Your task to perform on an android device: uninstall "Firefox Browser" Image 0: 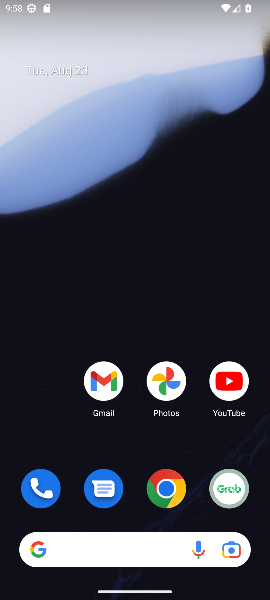
Step 0: drag from (124, 479) to (143, 161)
Your task to perform on an android device: uninstall "Firefox Browser" Image 1: 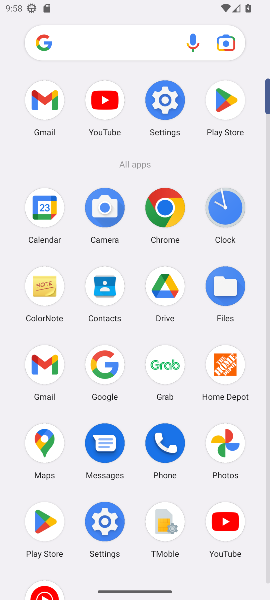
Step 1: click (220, 96)
Your task to perform on an android device: uninstall "Firefox Browser" Image 2: 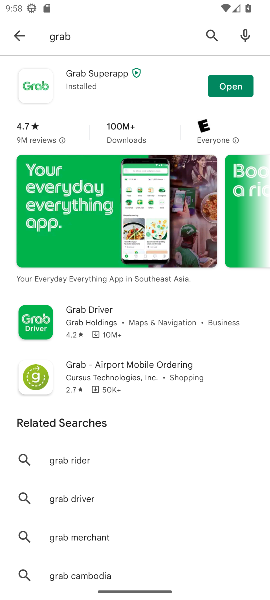
Step 2: click (18, 38)
Your task to perform on an android device: uninstall "Firefox Browser" Image 3: 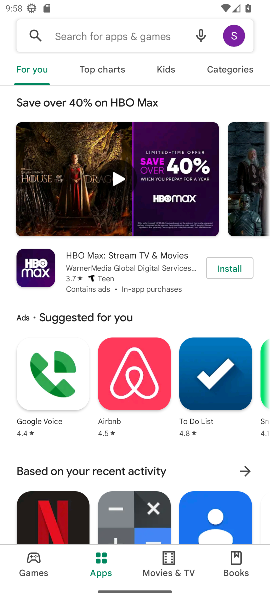
Step 3: click (18, 38)
Your task to perform on an android device: uninstall "Firefox Browser" Image 4: 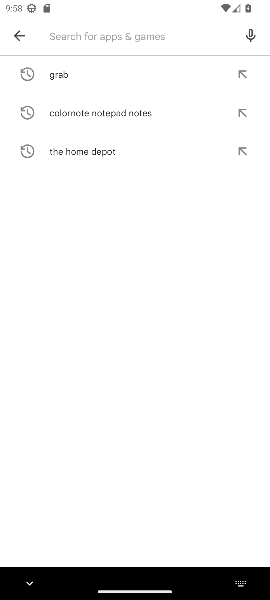
Step 4: click (78, 31)
Your task to perform on an android device: uninstall "Firefox Browser" Image 5: 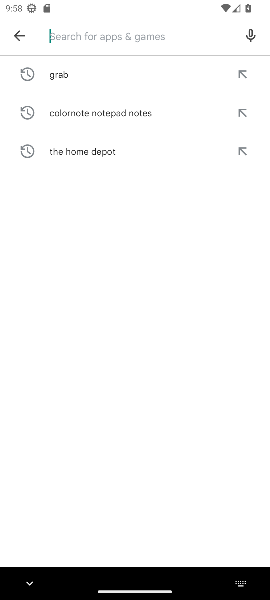
Step 5: type "Firefox Browser"
Your task to perform on an android device: uninstall "Firefox Browser" Image 6: 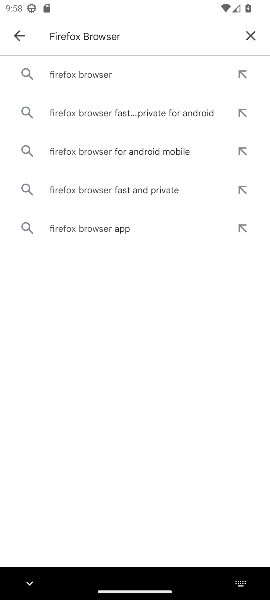
Step 6: click (85, 79)
Your task to perform on an android device: uninstall "Firefox Browser" Image 7: 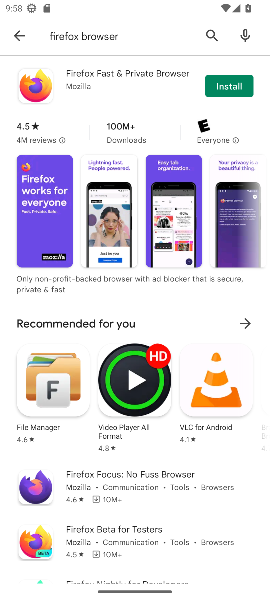
Step 7: task complete